Your task to perform on an android device: Go to location settings Image 0: 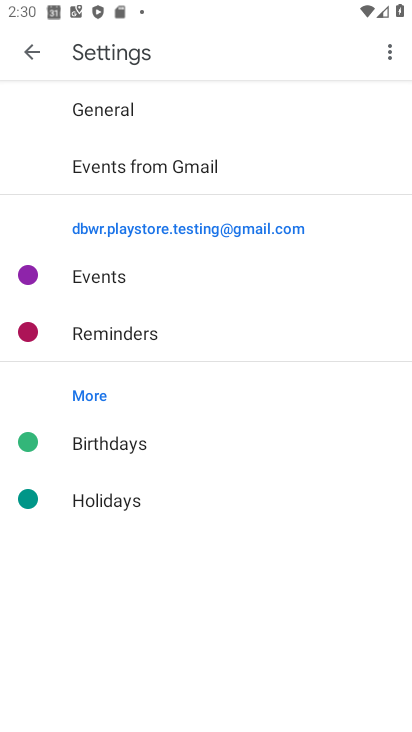
Step 0: press home button
Your task to perform on an android device: Go to location settings Image 1: 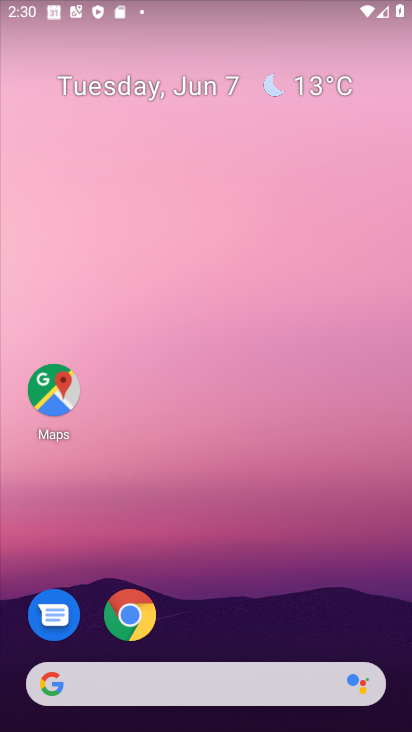
Step 1: drag from (183, 662) to (333, 70)
Your task to perform on an android device: Go to location settings Image 2: 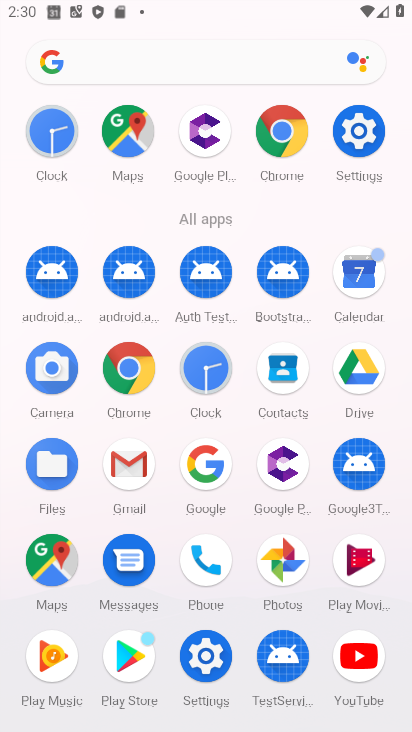
Step 2: drag from (224, 625) to (300, 376)
Your task to perform on an android device: Go to location settings Image 3: 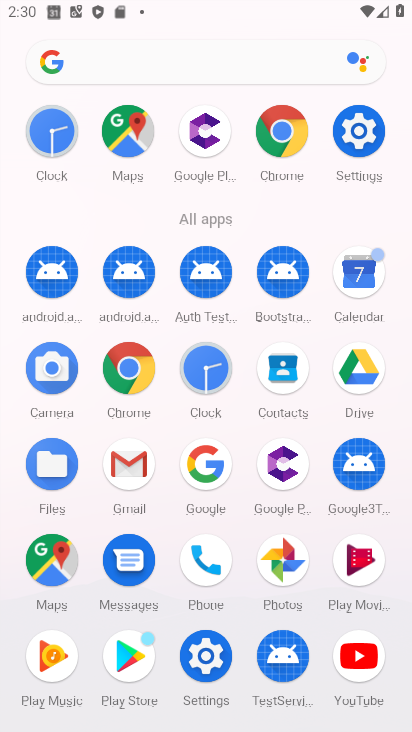
Step 3: click (195, 652)
Your task to perform on an android device: Go to location settings Image 4: 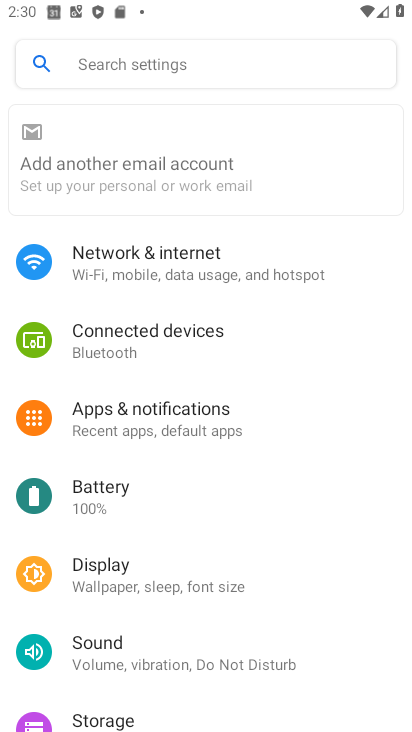
Step 4: drag from (114, 653) to (288, 319)
Your task to perform on an android device: Go to location settings Image 5: 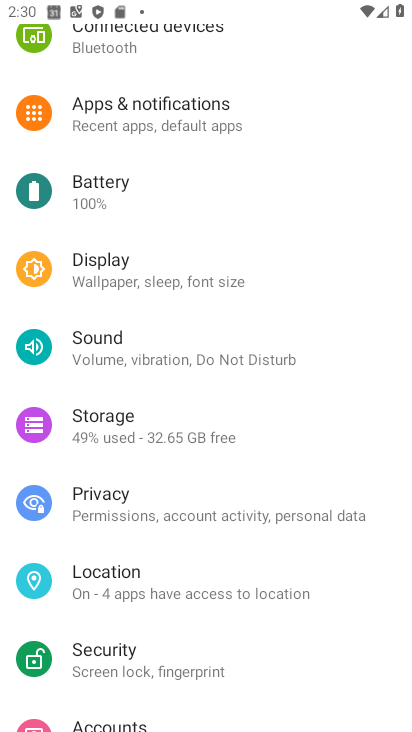
Step 5: click (132, 584)
Your task to perform on an android device: Go to location settings Image 6: 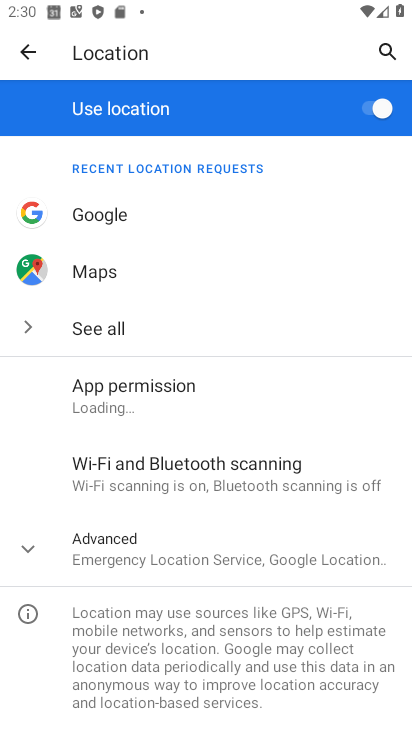
Step 6: task complete